Your task to perform on an android device: open a bookmark in the chrome app Image 0: 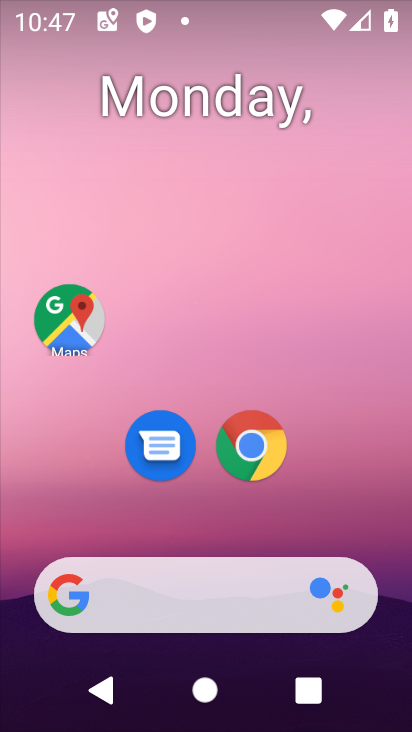
Step 0: click (254, 433)
Your task to perform on an android device: open a bookmark in the chrome app Image 1: 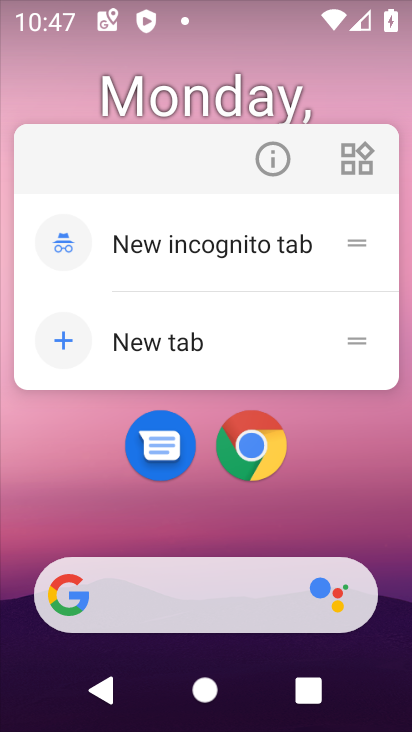
Step 1: click (261, 412)
Your task to perform on an android device: open a bookmark in the chrome app Image 2: 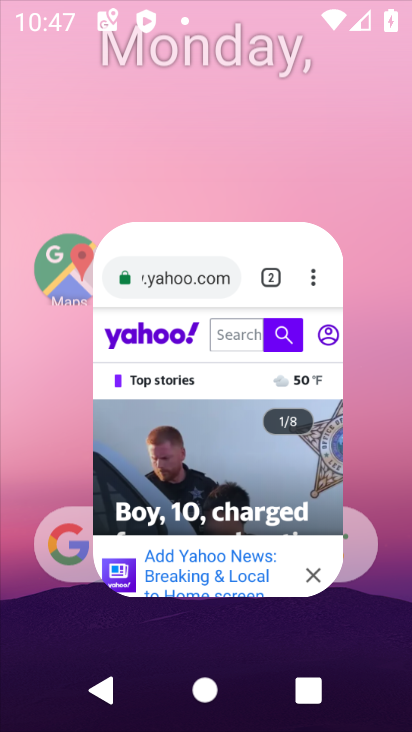
Step 2: click (242, 458)
Your task to perform on an android device: open a bookmark in the chrome app Image 3: 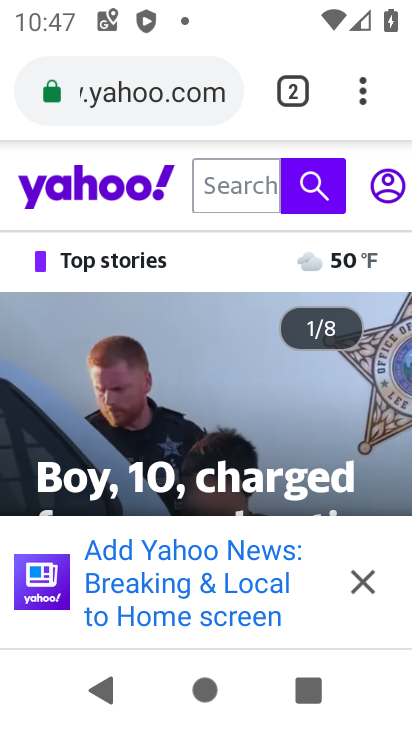
Step 3: task complete